Your task to perform on an android device: Open calendar and show me the fourth week of next month Image 0: 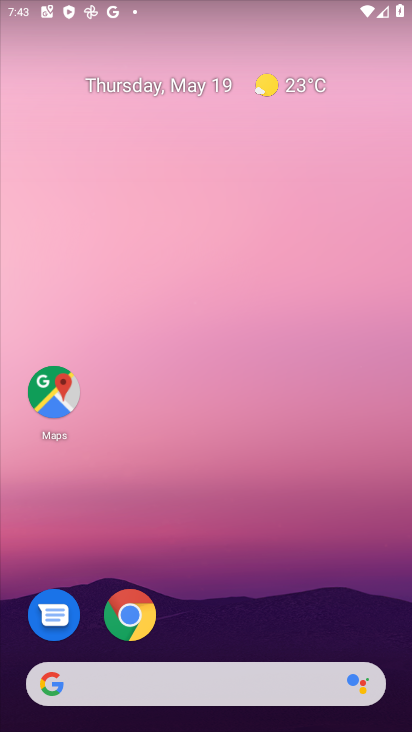
Step 0: drag from (366, 621) to (254, 114)
Your task to perform on an android device: Open calendar and show me the fourth week of next month Image 1: 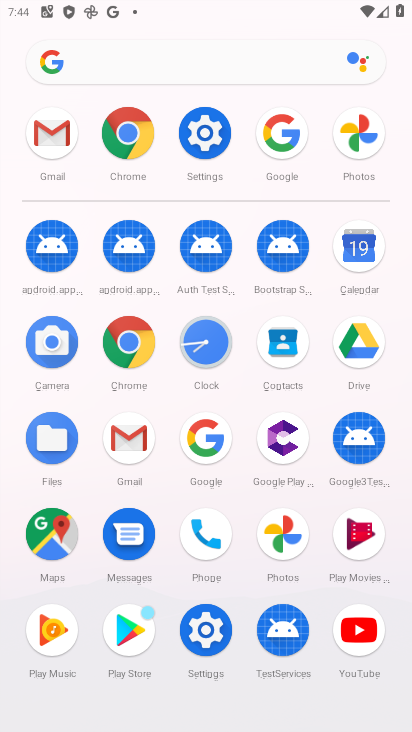
Step 1: click (342, 261)
Your task to perform on an android device: Open calendar and show me the fourth week of next month Image 2: 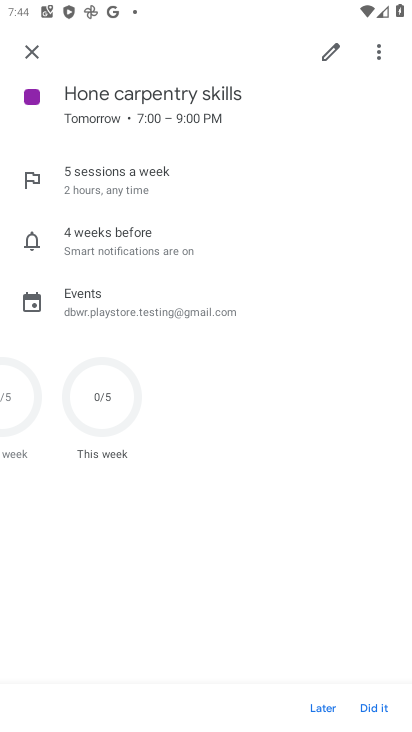
Step 2: press back button
Your task to perform on an android device: Open calendar and show me the fourth week of next month Image 3: 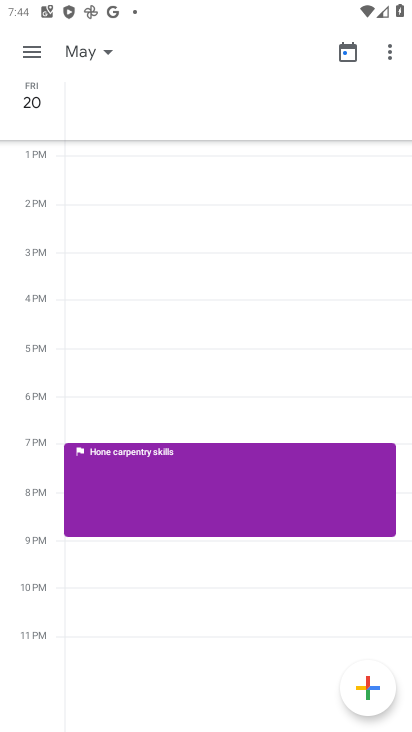
Step 3: click (81, 47)
Your task to perform on an android device: Open calendar and show me the fourth week of next month Image 4: 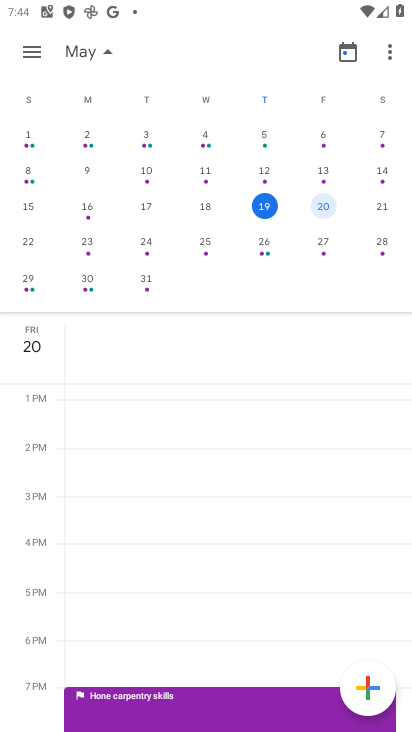
Step 4: drag from (350, 250) to (13, 178)
Your task to perform on an android device: Open calendar and show me the fourth week of next month Image 5: 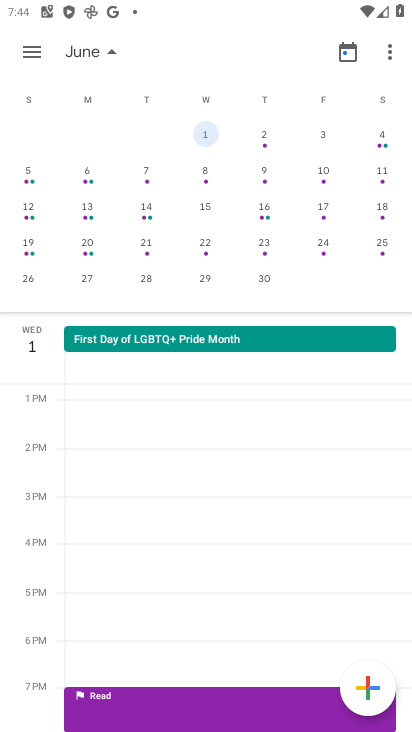
Step 5: click (82, 276)
Your task to perform on an android device: Open calendar and show me the fourth week of next month Image 6: 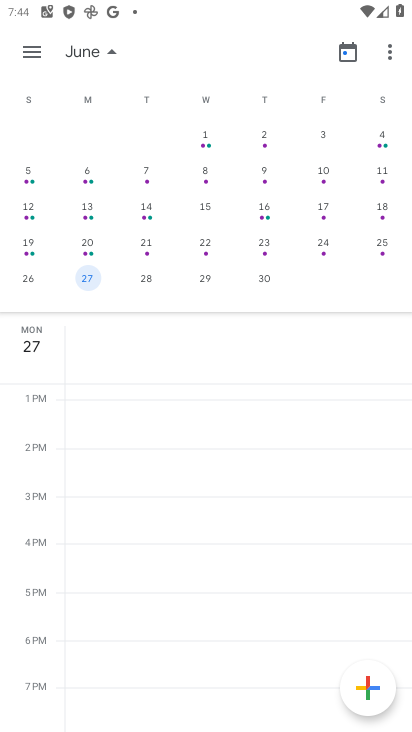
Step 6: task complete